Your task to perform on an android device: Open Google Chrome Image 0: 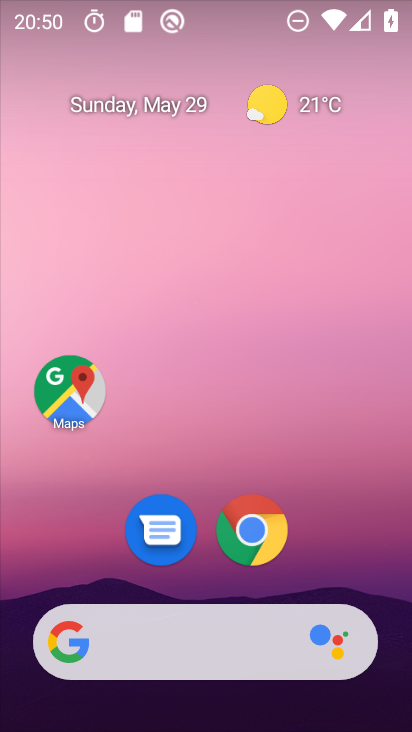
Step 0: drag from (217, 664) to (288, 168)
Your task to perform on an android device: Open Google Chrome Image 1: 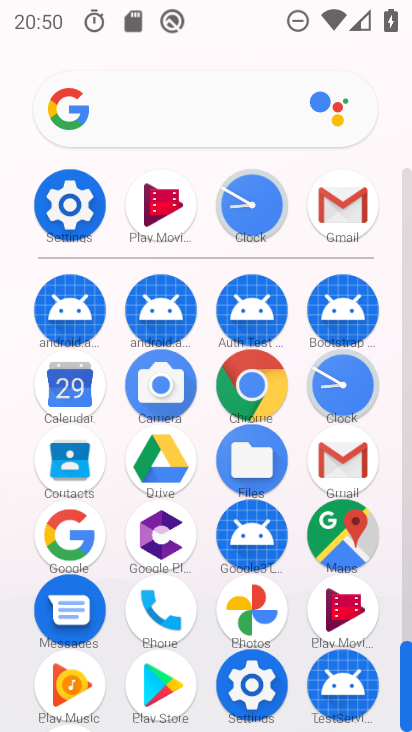
Step 1: click (251, 396)
Your task to perform on an android device: Open Google Chrome Image 2: 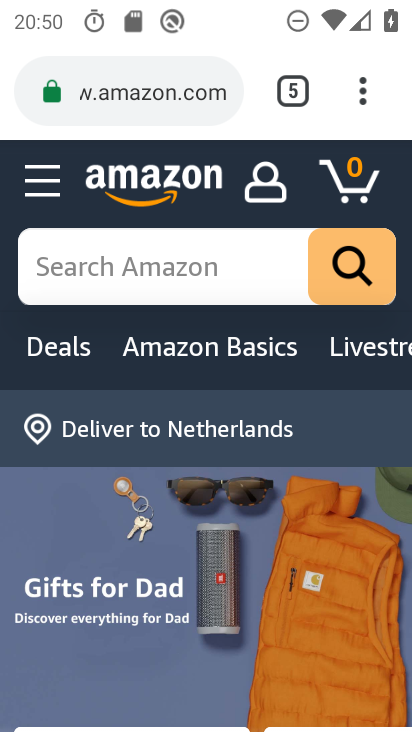
Step 2: click (282, 99)
Your task to perform on an android device: Open Google Chrome Image 3: 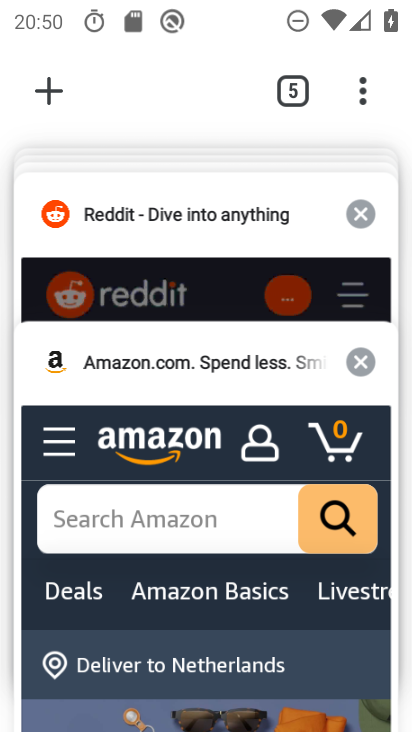
Step 3: click (56, 77)
Your task to perform on an android device: Open Google Chrome Image 4: 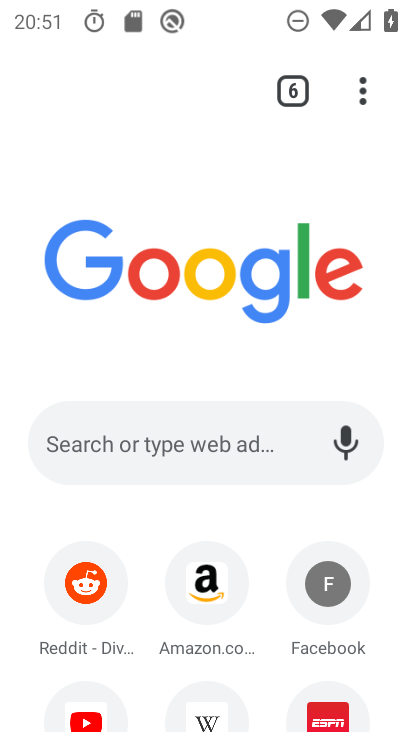
Step 4: task complete